Your task to perform on an android device: Open network settings Image 0: 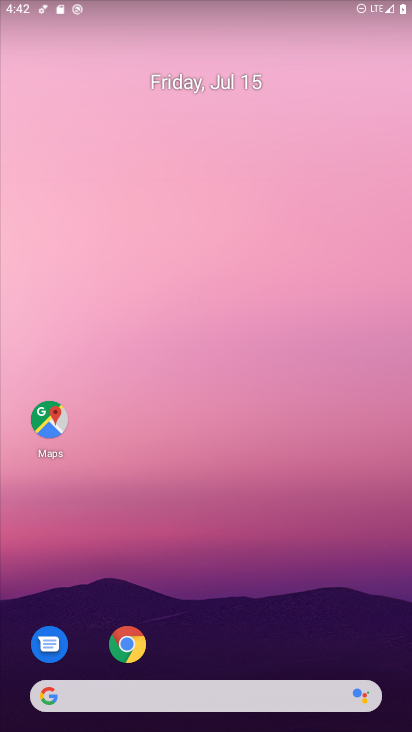
Step 0: drag from (245, 11) to (295, 545)
Your task to perform on an android device: Open network settings Image 1: 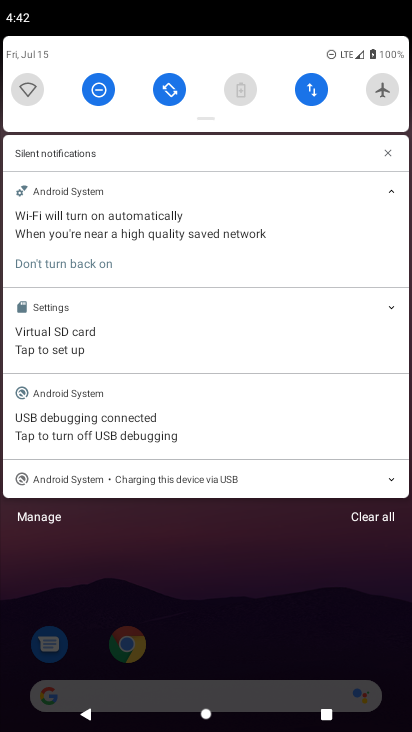
Step 1: click (318, 91)
Your task to perform on an android device: Open network settings Image 2: 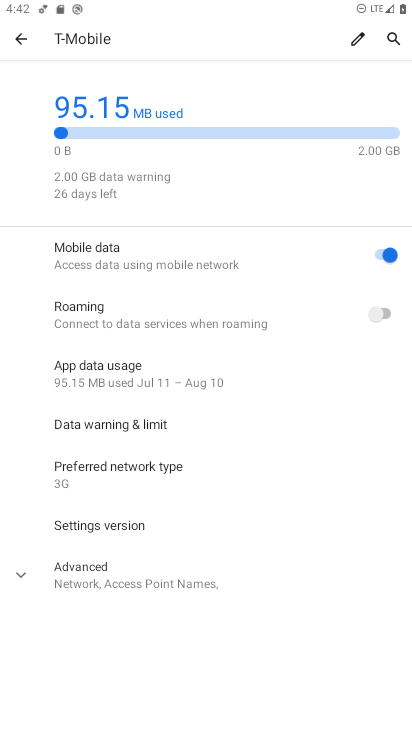
Step 2: task complete